Your task to perform on an android device: Go to wifi settings Image 0: 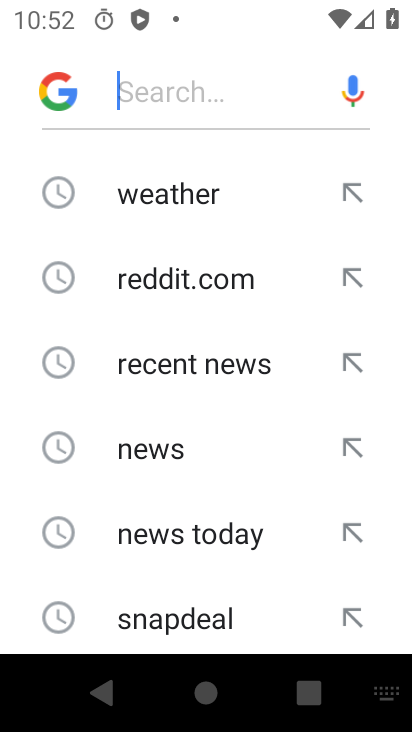
Step 0: press home button
Your task to perform on an android device: Go to wifi settings Image 1: 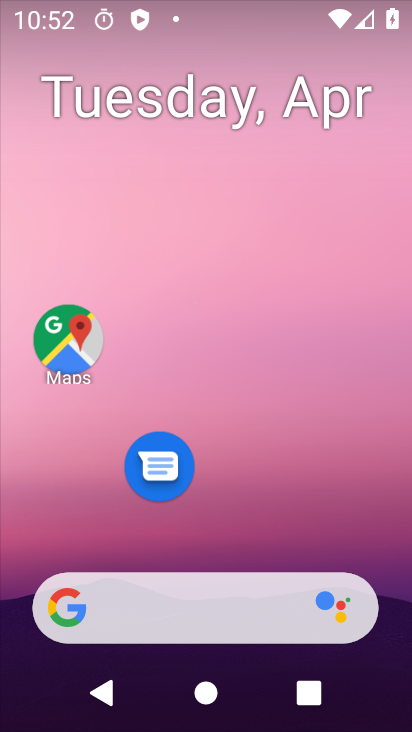
Step 1: drag from (271, 493) to (251, 49)
Your task to perform on an android device: Go to wifi settings Image 2: 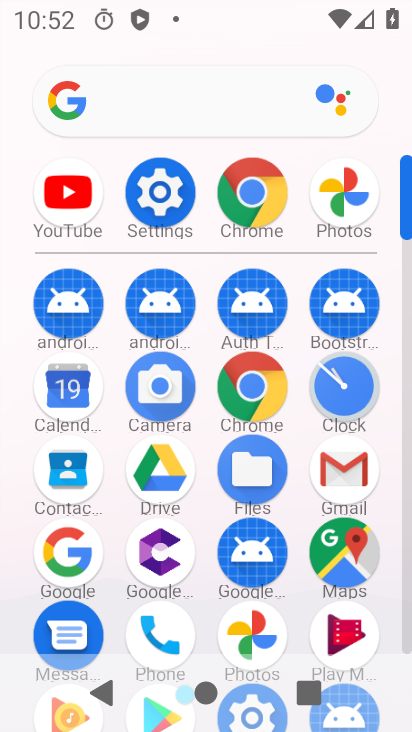
Step 2: click (408, 634)
Your task to perform on an android device: Go to wifi settings Image 3: 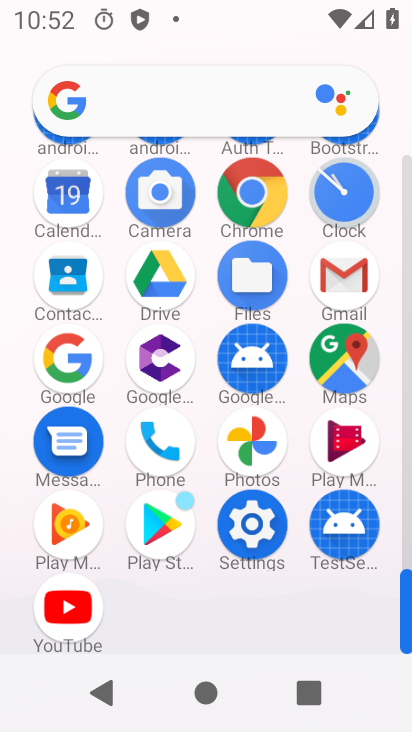
Step 3: click (408, 634)
Your task to perform on an android device: Go to wifi settings Image 4: 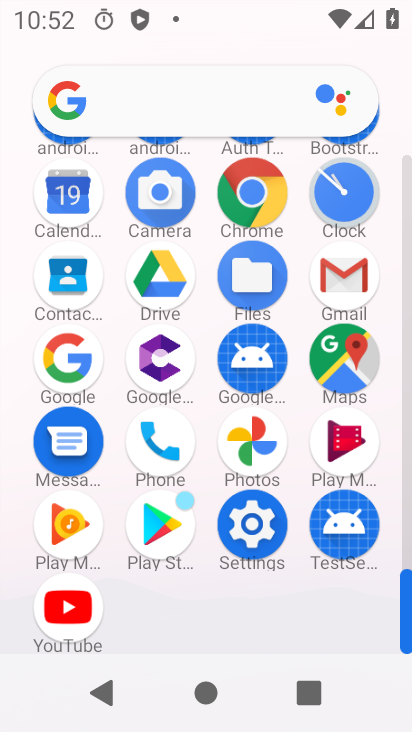
Step 4: click (263, 539)
Your task to perform on an android device: Go to wifi settings Image 5: 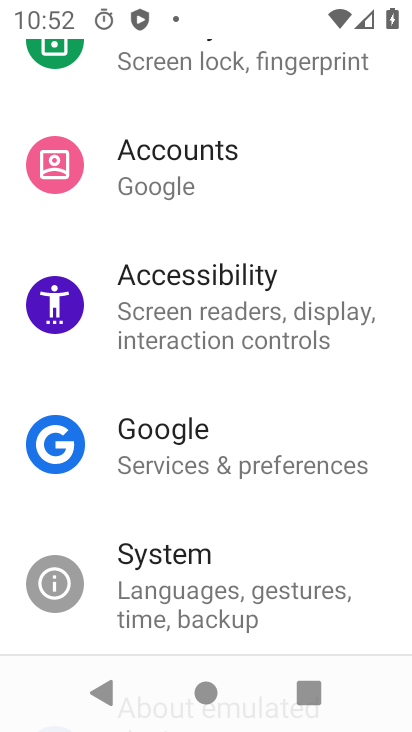
Step 5: drag from (350, 239) to (328, 691)
Your task to perform on an android device: Go to wifi settings Image 6: 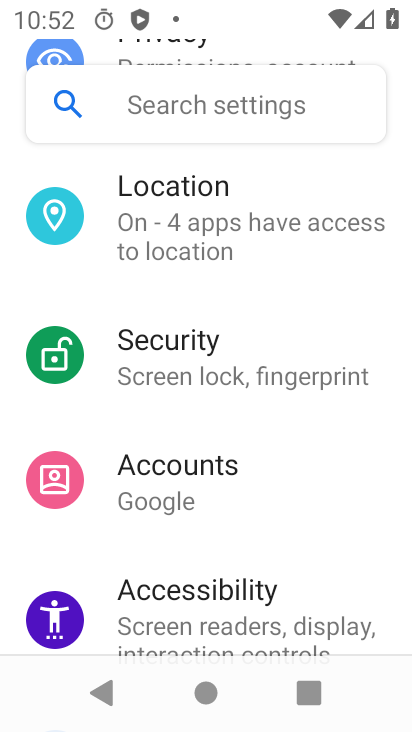
Step 6: drag from (321, 250) to (332, 680)
Your task to perform on an android device: Go to wifi settings Image 7: 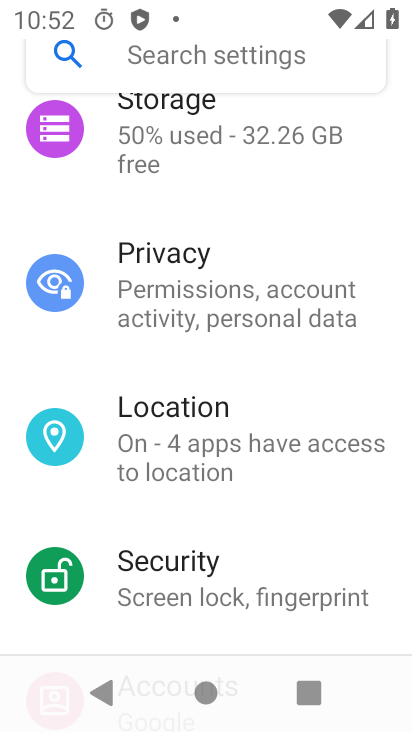
Step 7: drag from (259, 288) to (233, 657)
Your task to perform on an android device: Go to wifi settings Image 8: 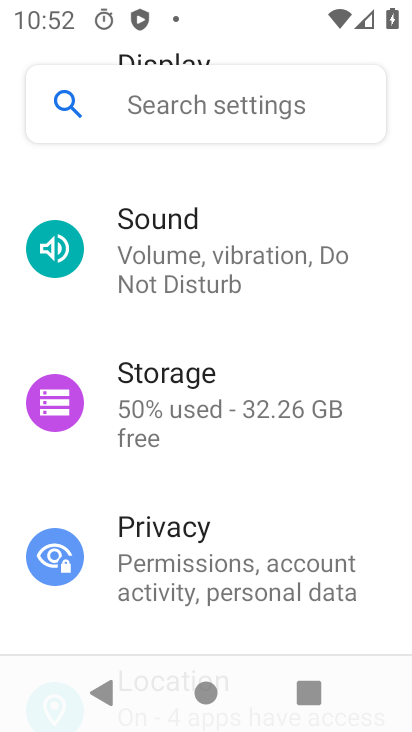
Step 8: drag from (275, 272) to (257, 566)
Your task to perform on an android device: Go to wifi settings Image 9: 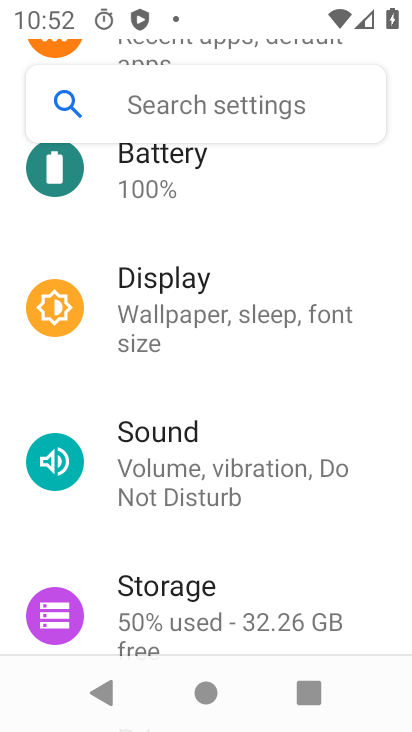
Step 9: drag from (233, 267) to (228, 641)
Your task to perform on an android device: Go to wifi settings Image 10: 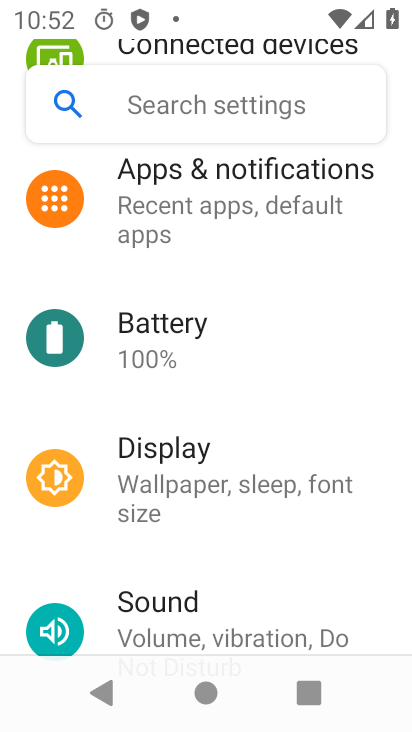
Step 10: drag from (256, 308) to (240, 527)
Your task to perform on an android device: Go to wifi settings Image 11: 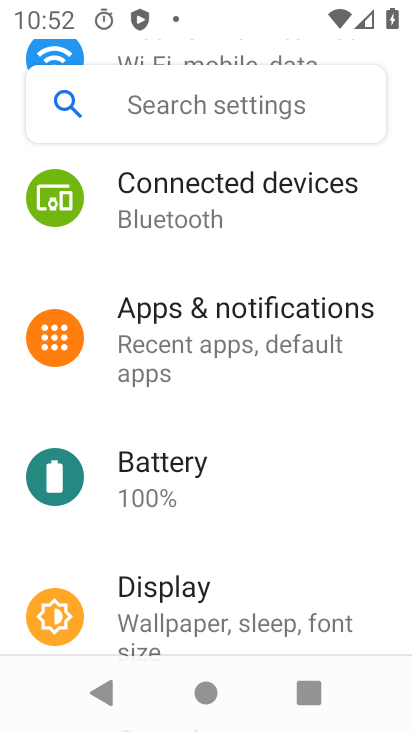
Step 11: drag from (267, 284) to (209, 719)
Your task to perform on an android device: Go to wifi settings Image 12: 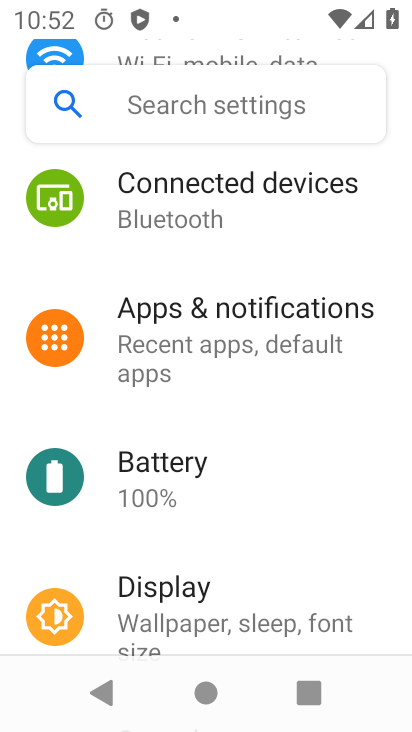
Step 12: drag from (289, 303) to (260, 644)
Your task to perform on an android device: Go to wifi settings Image 13: 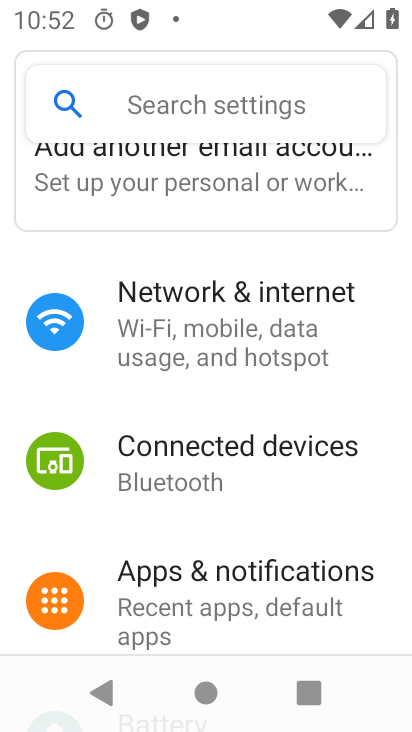
Step 13: drag from (242, 256) to (238, 462)
Your task to perform on an android device: Go to wifi settings Image 14: 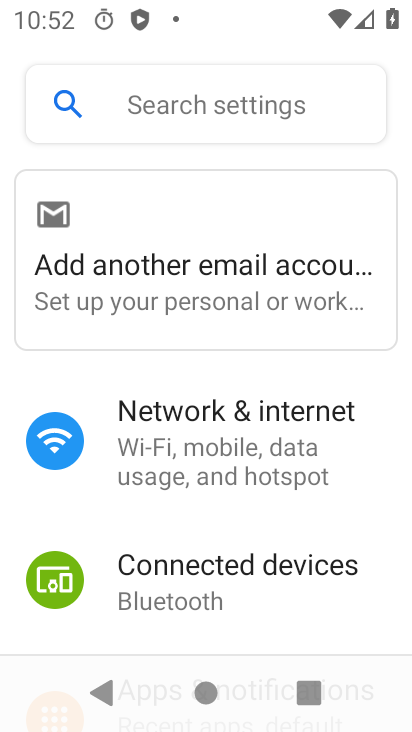
Step 14: click (238, 462)
Your task to perform on an android device: Go to wifi settings Image 15: 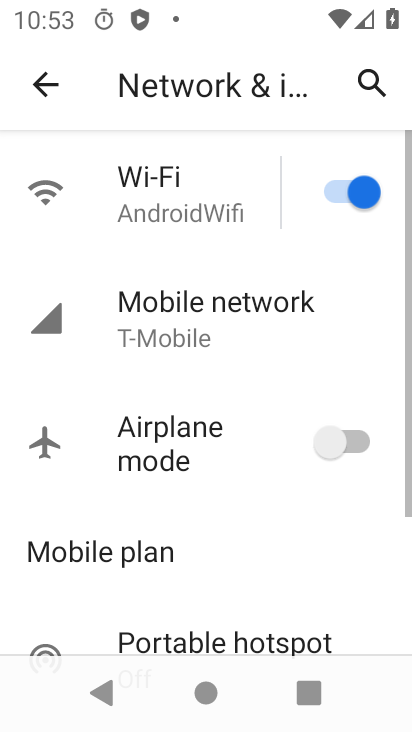
Step 15: task complete